Your task to perform on an android device: Go to Amazon Image 0: 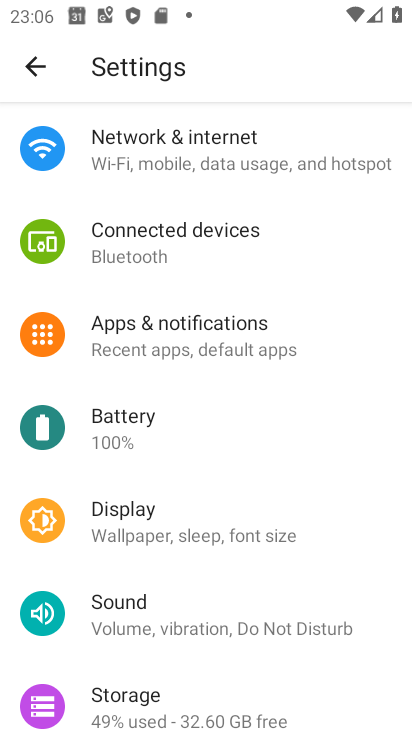
Step 0: press home button
Your task to perform on an android device: Go to Amazon Image 1: 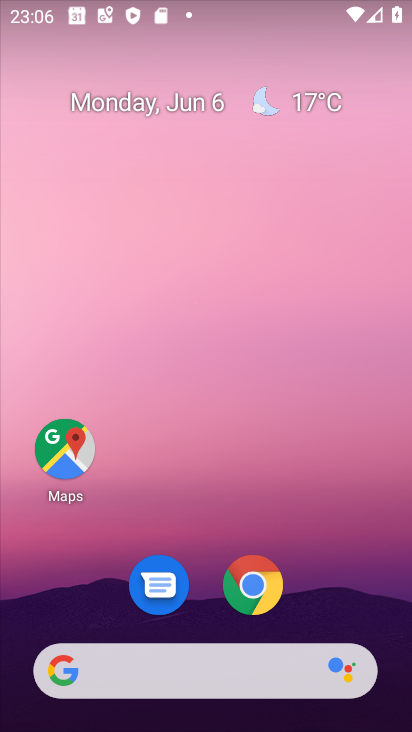
Step 1: click (251, 581)
Your task to perform on an android device: Go to Amazon Image 2: 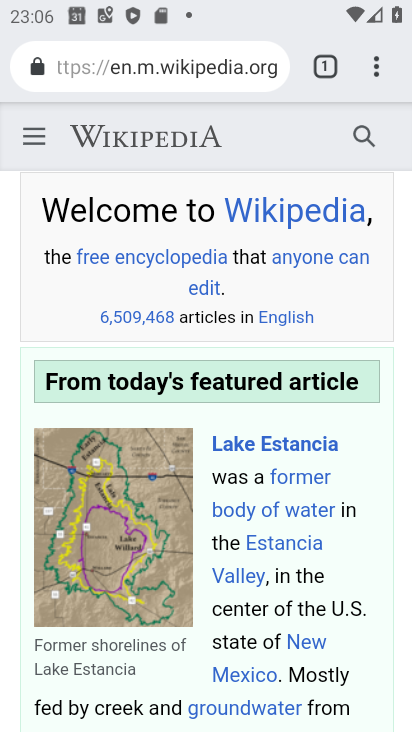
Step 2: click (373, 64)
Your task to perform on an android device: Go to Amazon Image 3: 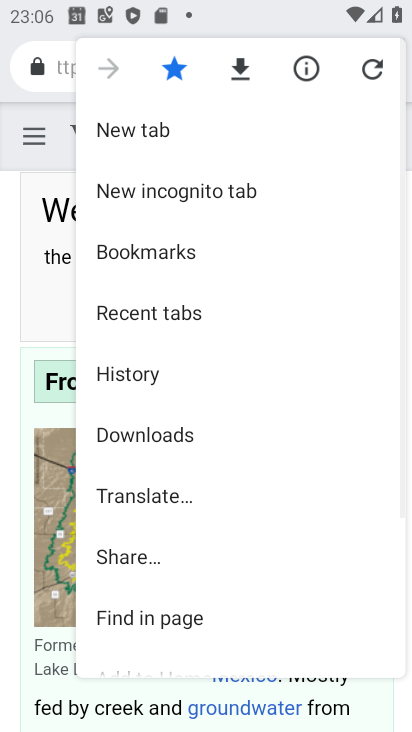
Step 3: click (267, 127)
Your task to perform on an android device: Go to Amazon Image 4: 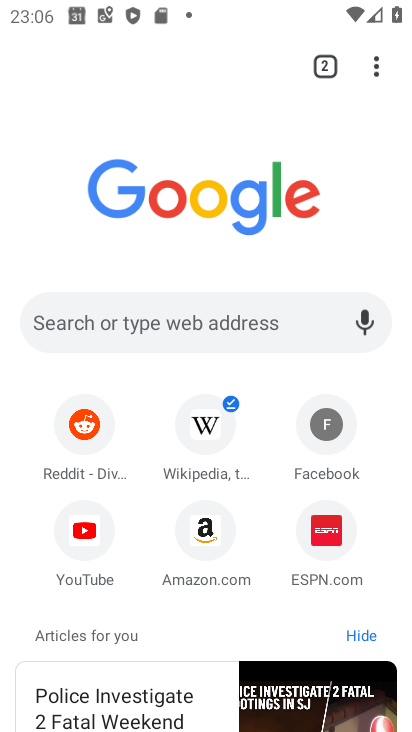
Step 4: click (212, 529)
Your task to perform on an android device: Go to Amazon Image 5: 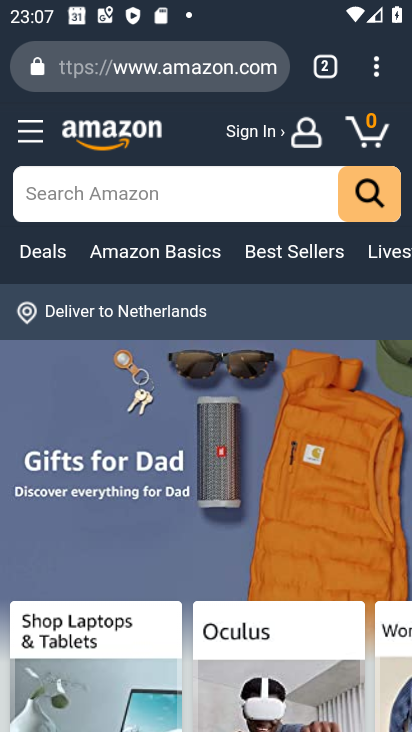
Step 5: task complete